Your task to perform on an android device: Go to wifi settings Image 0: 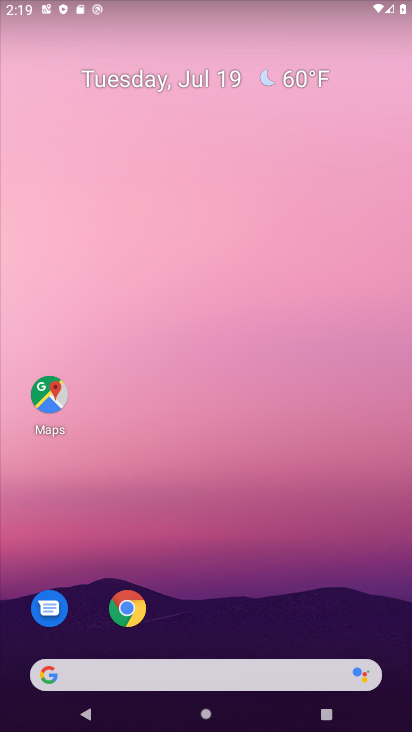
Step 0: drag from (271, 472) to (132, 7)
Your task to perform on an android device: Go to wifi settings Image 1: 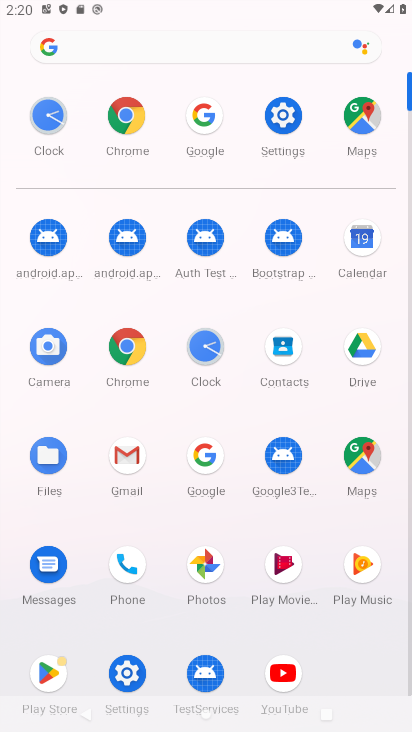
Step 1: click (274, 124)
Your task to perform on an android device: Go to wifi settings Image 2: 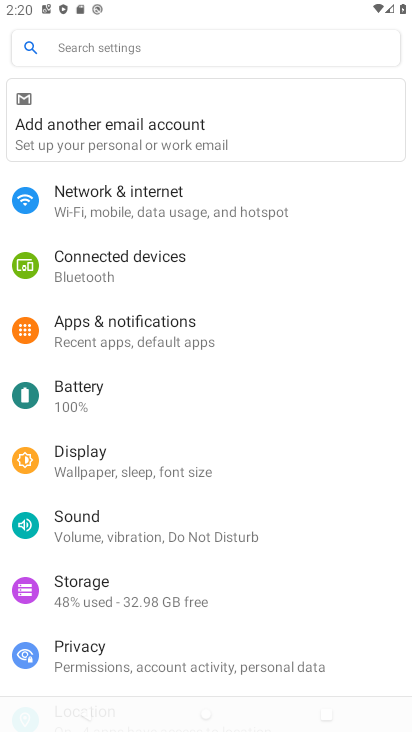
Step 2: click (136, 207)
Your task to perform on an android device: Go to wifi settings Image 3: 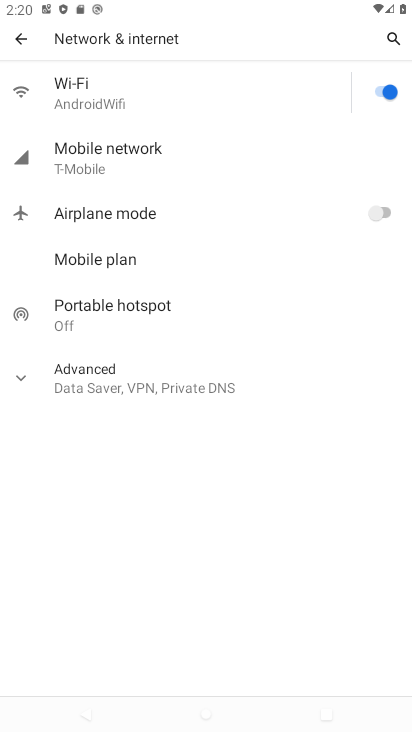
Step 3: click (108, 99)
Your task to perform on an android device: Go to wifi settings Image 4: 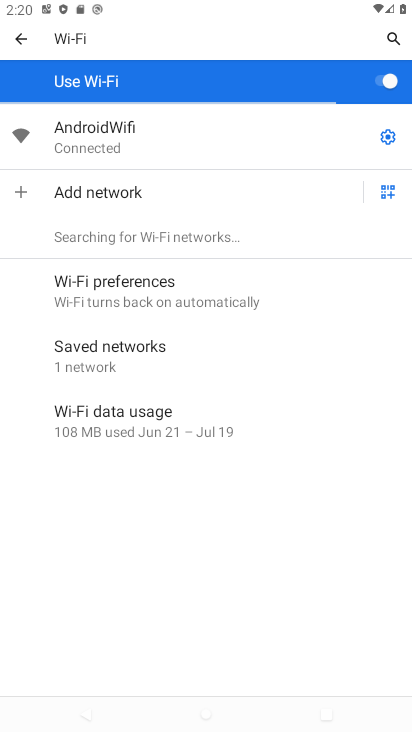
Step 4: task complete